Your task to perform on an android device: change text size in settings app Image 0: 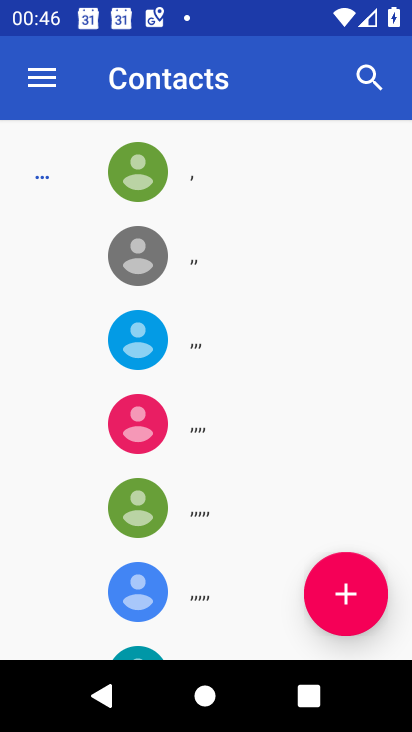
Step 0: press home button
Your task to perform on an android device: change text size in settings app Image 1: 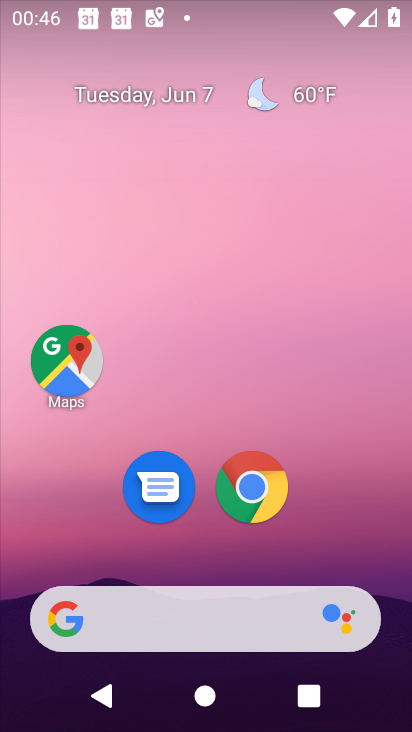
Step 1: drag from (374, 547) to (269, 102)
Your task to perform on an android device: change text size in settings app Image 2: 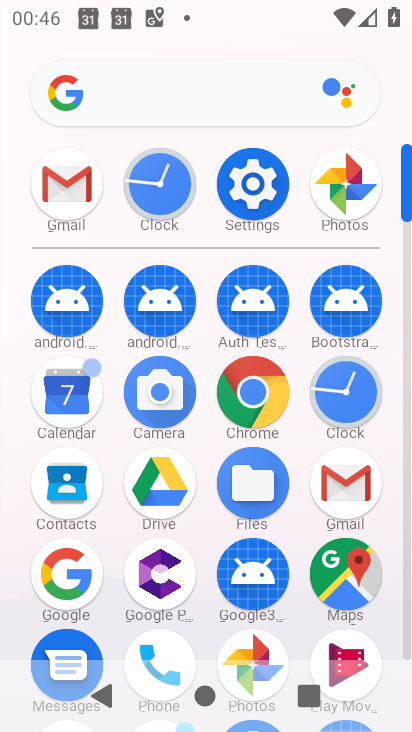
Step 2: click (246, 178)
Your task to perform on an android device: change text size in settings app Image 3: 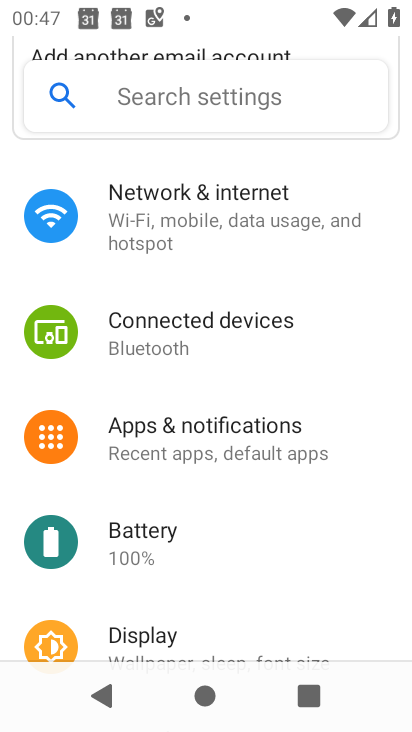
Step 3: click (234, 631)
Your task to perform on an android device: change text size in settings app Image 4: 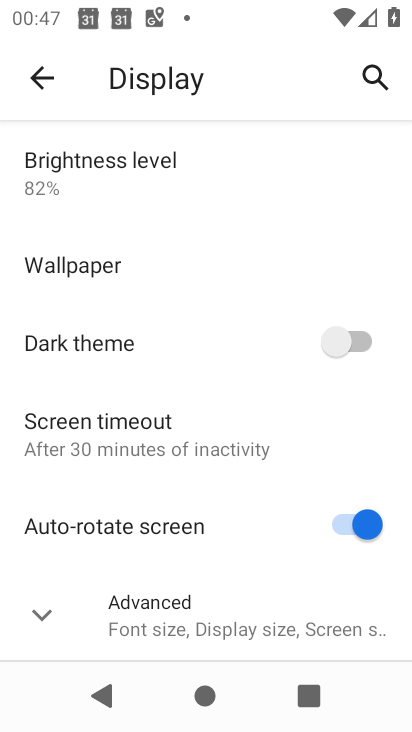
Step 4: click (226, 630)
Your task to perform on an android device: change text size in settings app Image 5: 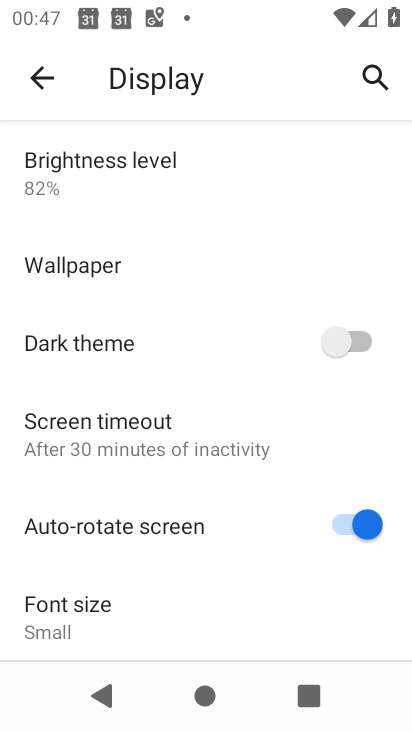
Step 5: drag from (226, 630) to (175, 333)
Your task to perform on an android device: change text size in settings app Image 6: 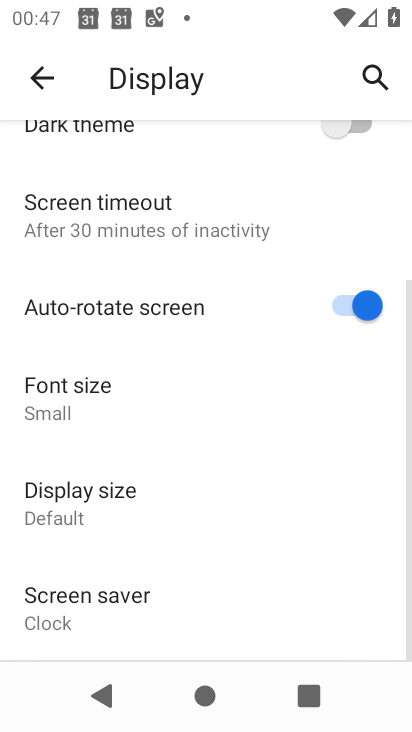
Step 6: click (179, 377)
Your task to perform on an android device: change text size in settings app Image 7: 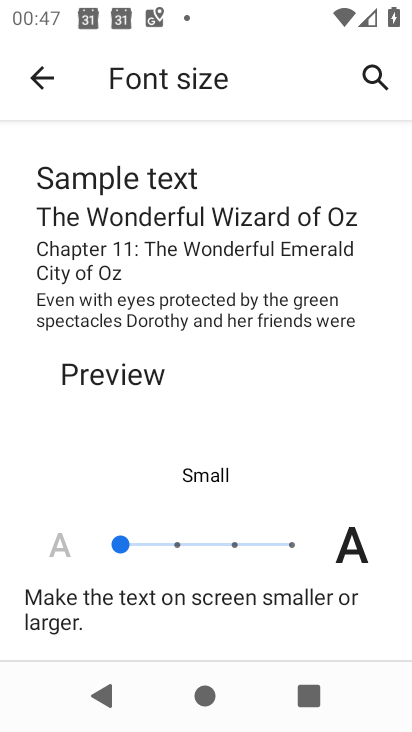
Step 7: click (190, 552)
Your task to perform on an android device: change text size in settings app Image 8: 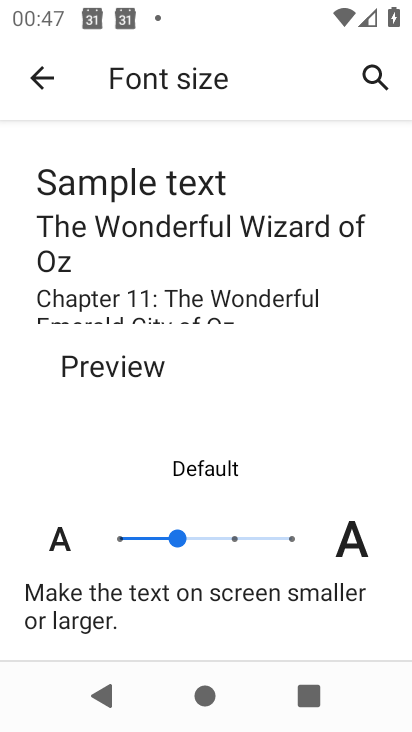
Step 8: task complete